Your task to perform on an android device: Open Google Chrome and open the bookmarks view Image 0: 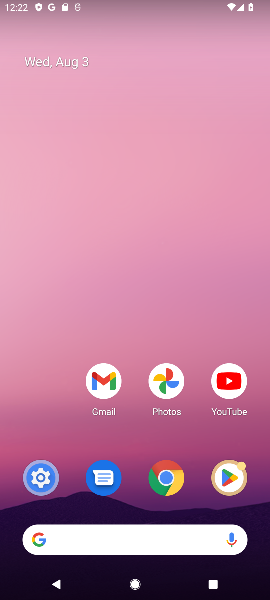
Step 0: click (163, 476)
Your task to perform on an android device: Open Google Chrome and open the bookmarks view Image 1: 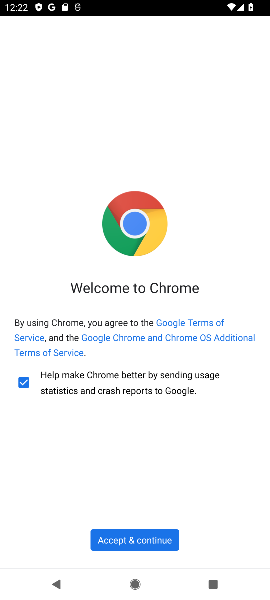
Step 1: click (128, 539)
Your task to perform on an android device: Open Google Chrome and open the bookmarks view Image 2: 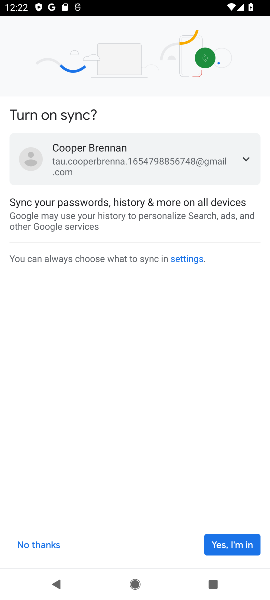
Step 2: click (220, 539)
Your task to perform on an android device: Open Google Chrome and open the bookmarks view Image 3: 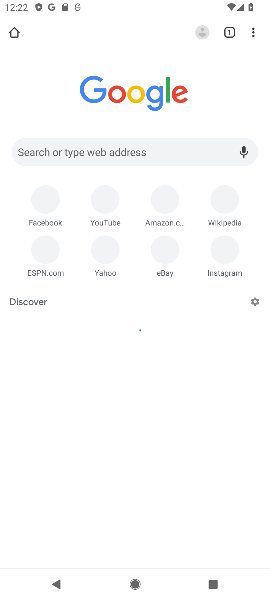
Step 3: click (228, 543)
Your task to perform on an android device: Open Google Chrome and open the bookmarks view Image 4: 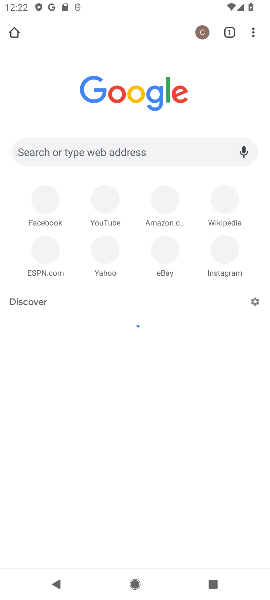
Step 4: click (253, 34)
Your task to perform on an android device: Open Google Chrome and open the bookmarks view Image 5: 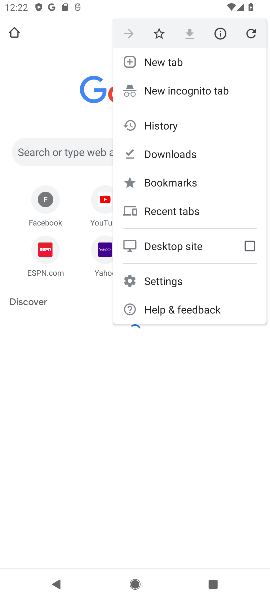
Step 5: click (176, 180)
Your task to perform on an android device: Open Google Chrome and open the bookmarks view Image 6: 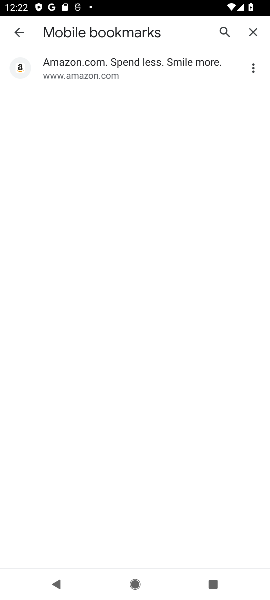
Step 6: task complete